Your task to perform on an android device: move an email to a new category in the gmail app Image 0: 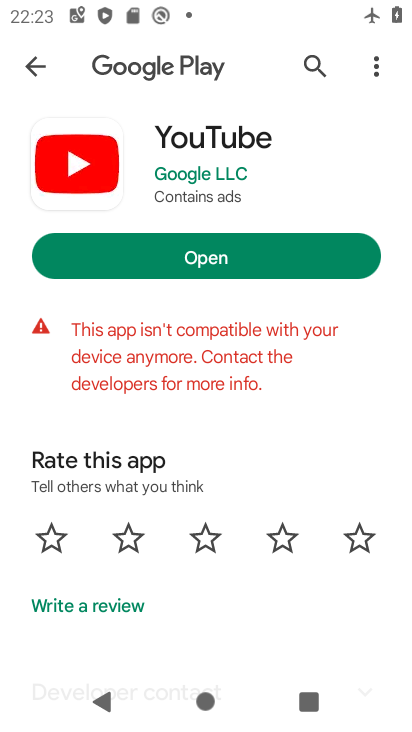
Step 0: press home button
Your task to perform on an android device: move an email to a new category in the gmail app Image 1: 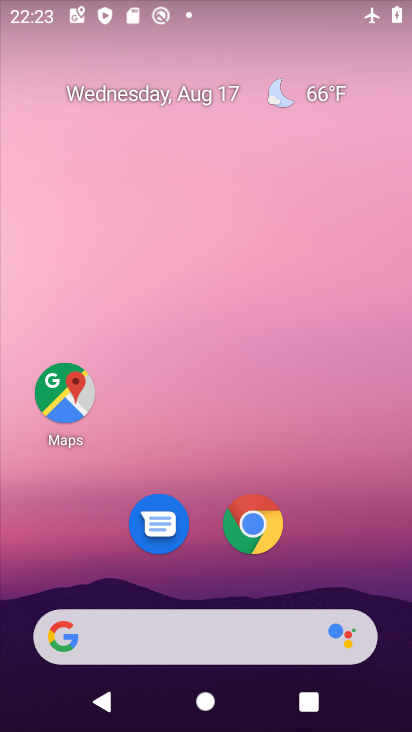
Step 1: drag from (297, 545) to (276, 21)
Your task to perform on an android device: move an email to a new category in the gmail app Image 2: 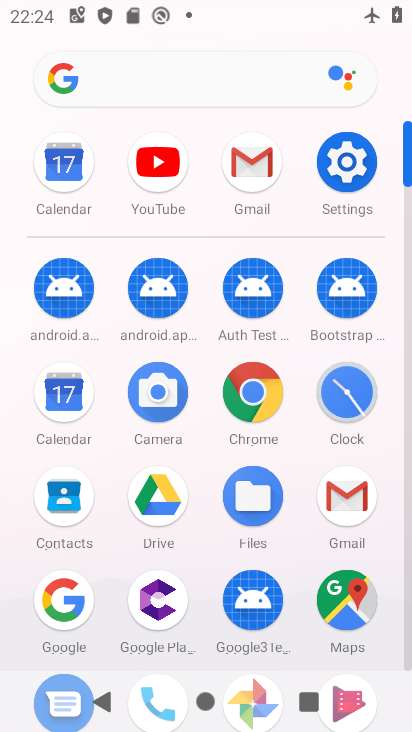
Step 2: click (253, 174)
Your task to perform on an android device: move an email to a new category in the gmail app Image 3: 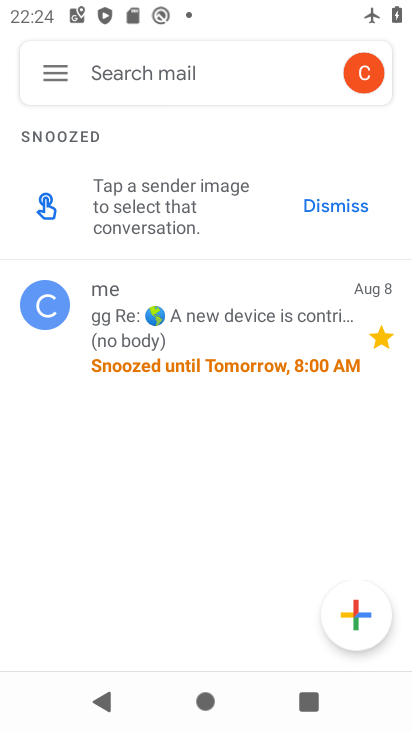
Step 3: click (292, 322)
Your task to perform on an android device: move an email to a new category in the gmail app Image 4: 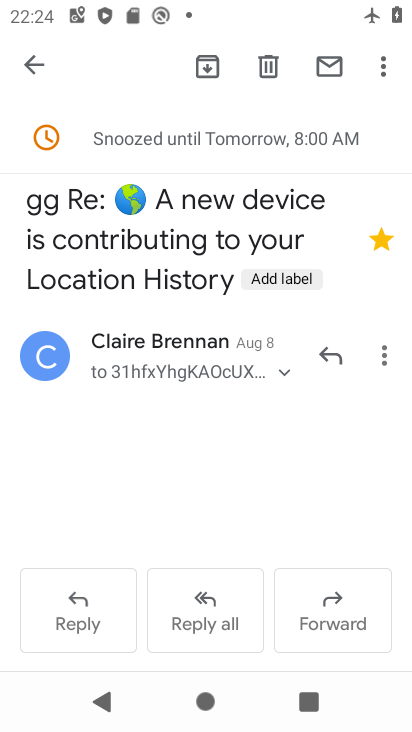
Step 4: click (383, 62)
Your task to perform on an android device: move an email to a new category in the gmail app Image 5: 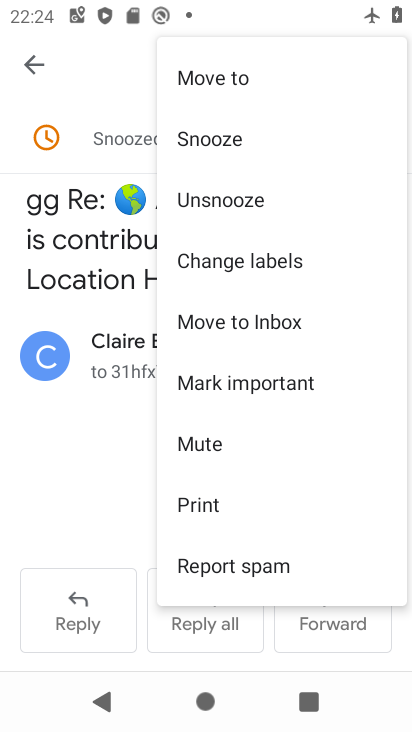
Step 5: click (293, 312)
Your task to perform on an android device: move an email to a new category in the gmail app Image 6: 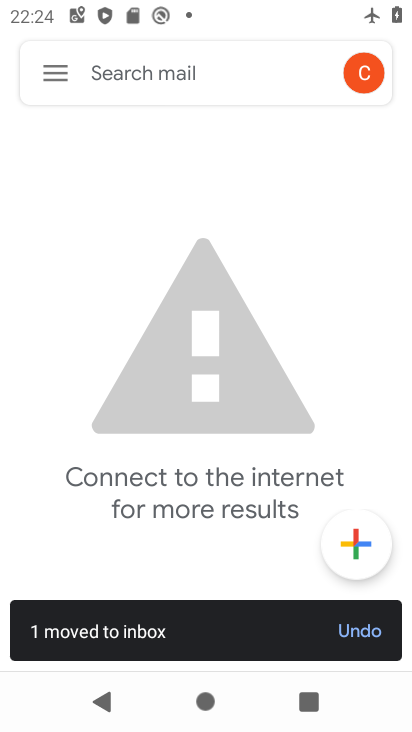
Step 6: task complete